Your task to perform on an android device: stop showing notifications on the lock screen Image 0: 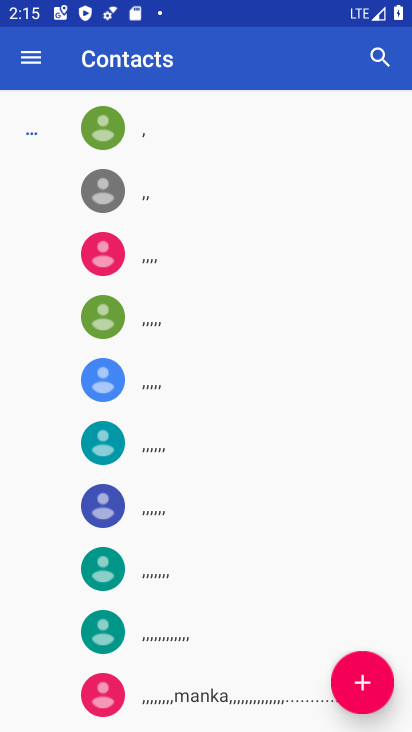
Step 0: press home button
Your task to perform on an android device: stop showing notifications on the lock screen Image 1: 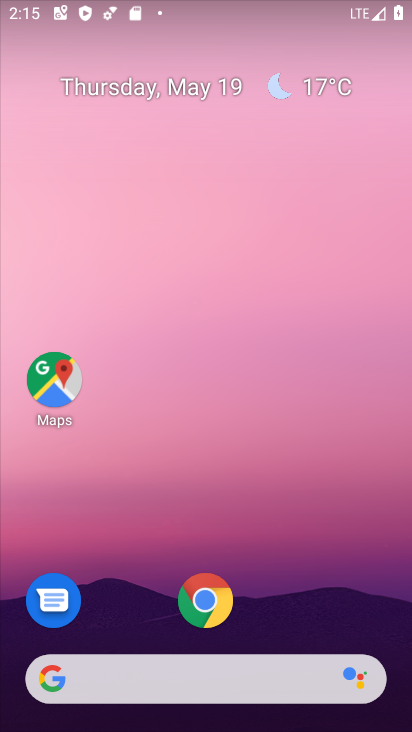
Step 1: drag from (334, 544) to (283, 184)
Your task to perform on an android device: stop showing notifications on the lock screen Image 2: 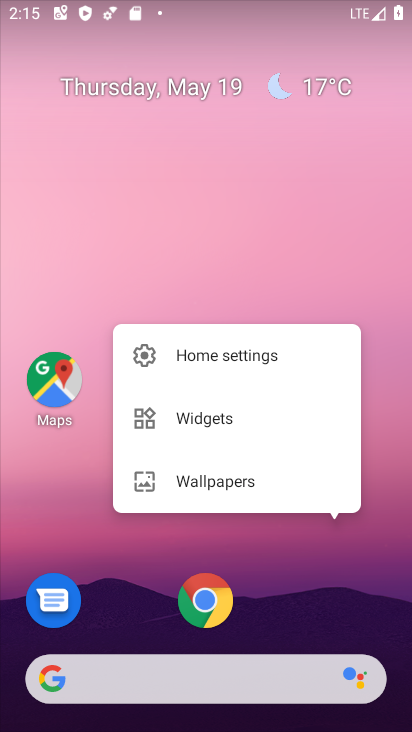
Step 2: drag from (350, 600) to (355, 176)
Your task to perform on an android device: stop showing notifications on the lock screen Image 3: 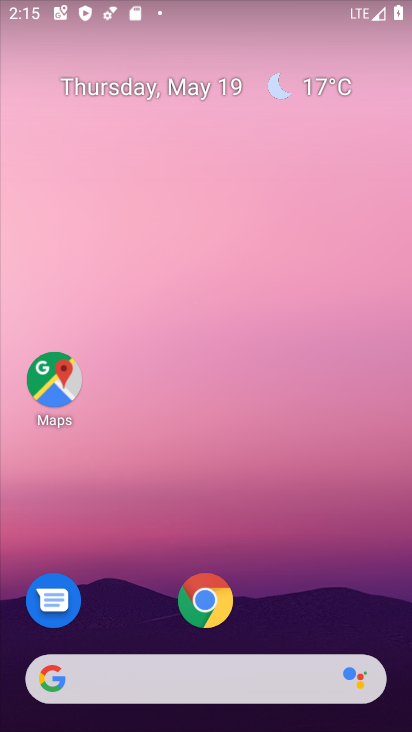
Step 3: drag from (309, 566) to (342, 159)
Your task to perform on an android device: stop showing notifications on the lock screen Image 4: 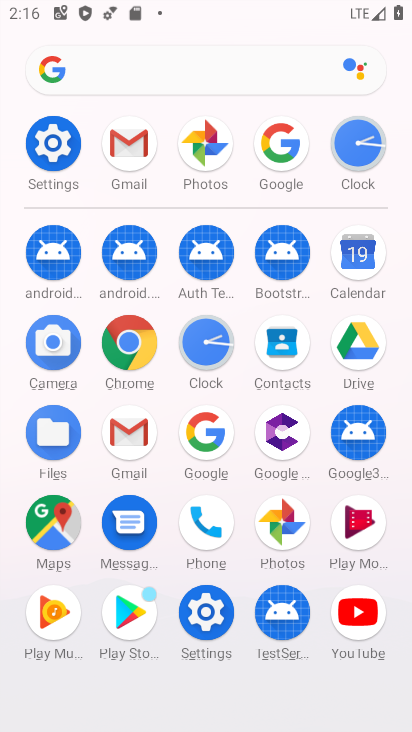
Step 4: click (205, 607)
Your task to perform on an android device: stop showing notifications on the lock screen Image 5: 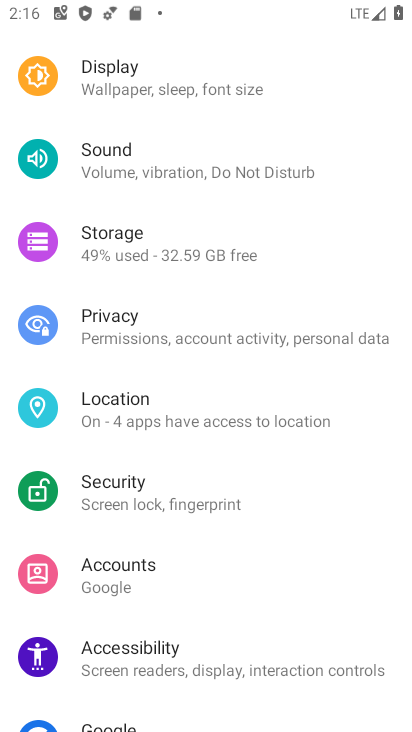
Step 5: drag from (198, 194) to (258, 524)
Your task to perform on an android device: stop showing notifications on the lock screen Image 6: 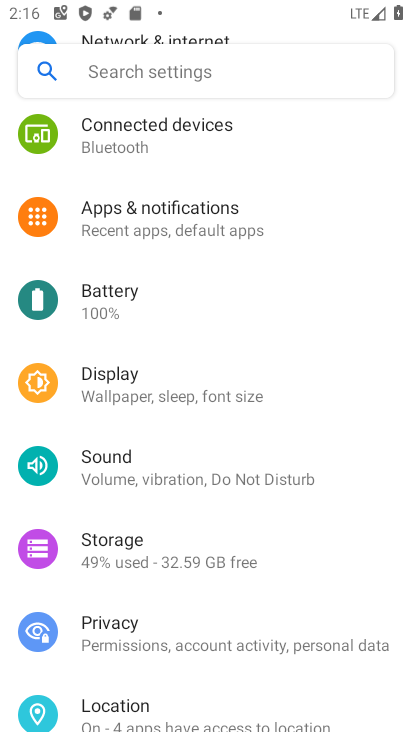
Step 6: click (209, 231)
Your task to perform on an android device: stop showing notifications on the lock screen Image 7: 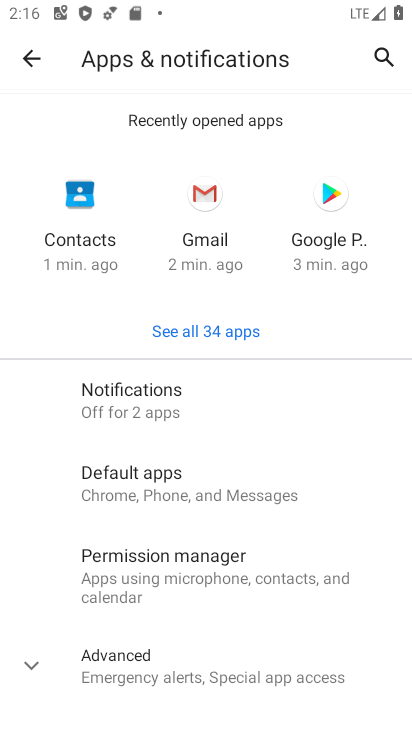
Step 7: click (167, 402)
Your task to perform on an android device: stop showing notifications on the lock screen Image 8: 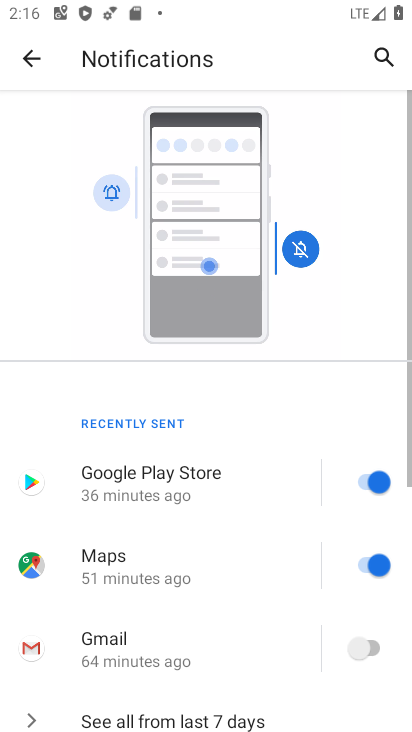
Step 8: drag from (236, 618) to (240, 288)
Your task to perform on an android device: stop showing notifications on the lock screen Image 9: 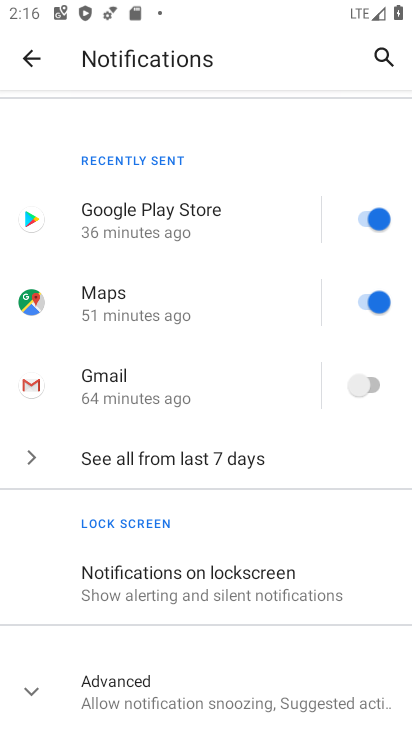
Step 9: click (178, 573)
Your task to perform on an android device: stop showing notifications on the lock screen Image 10: 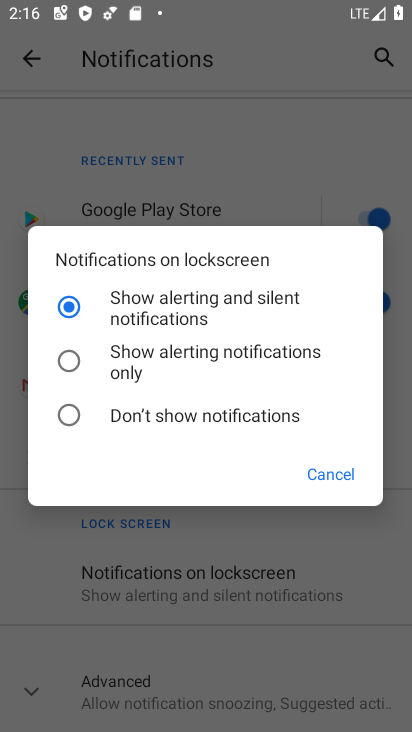
Step 10: click (155, 421)
Your task to perform on an android device: stop showing notifications on the lock screen Image 11: 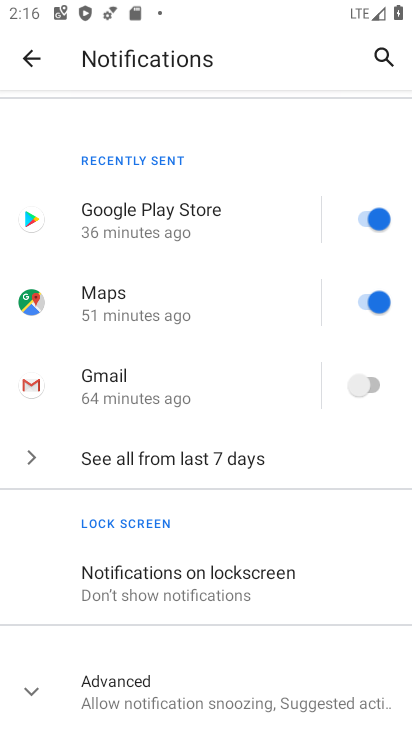
Step 11: task complete